Your task to perform on an android device: Open the Play Movies app and select the watchlist tab. Image 0: 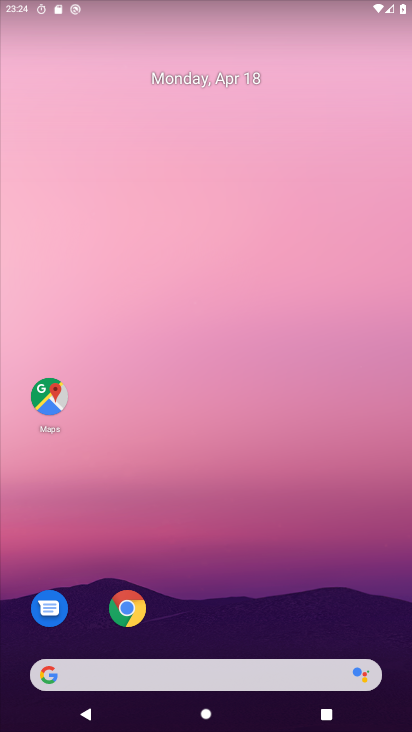
Step 0: drag from (200, 592) to (364, 193)
Your task to perform on an android device: Open the Play Movies app and select the watchlist tab. Image 1: 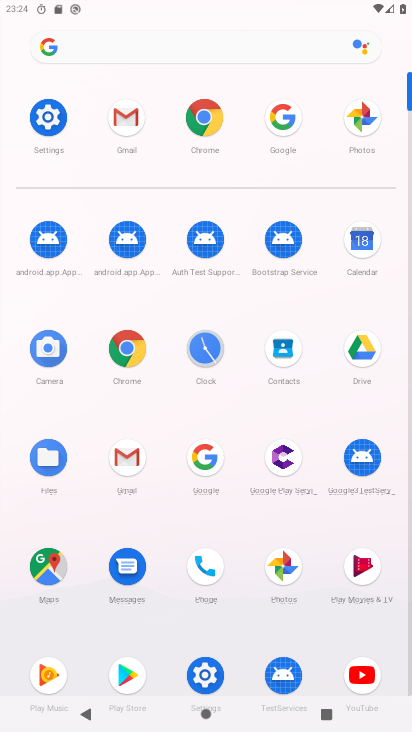
Step 1: click (358, 564)
Your task to perform on an android device: Open the Play Movies app and select the watchlist tab. Image 2: 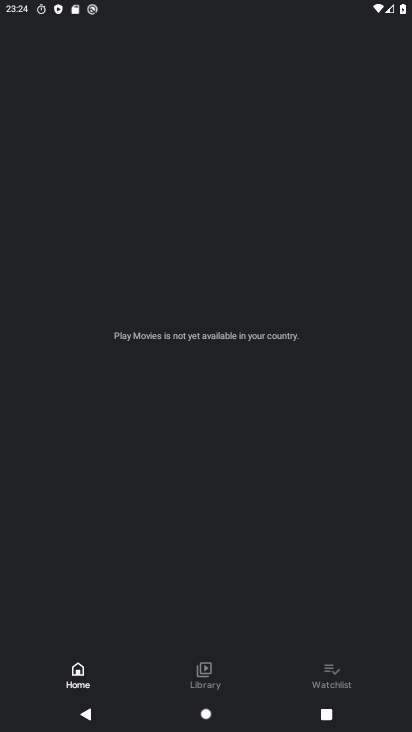
Step 2: click (329, 688)
Your task to perform on an android device: Open the Play Movies app and select the watchlist tab. Image 3: 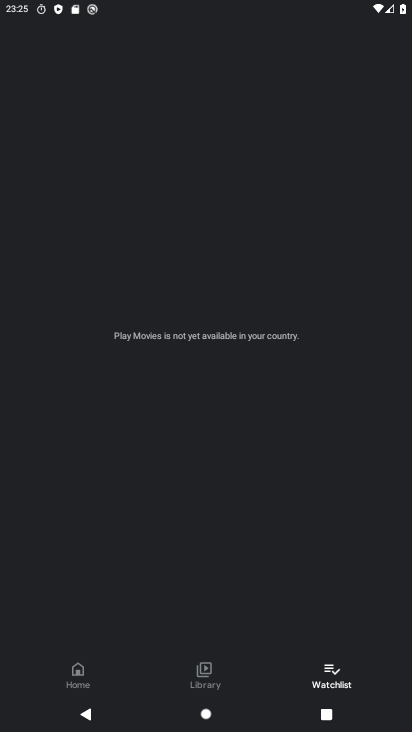
Step 3: task complete